Your task to perform on an android device: toggle airplane mode Image 0: 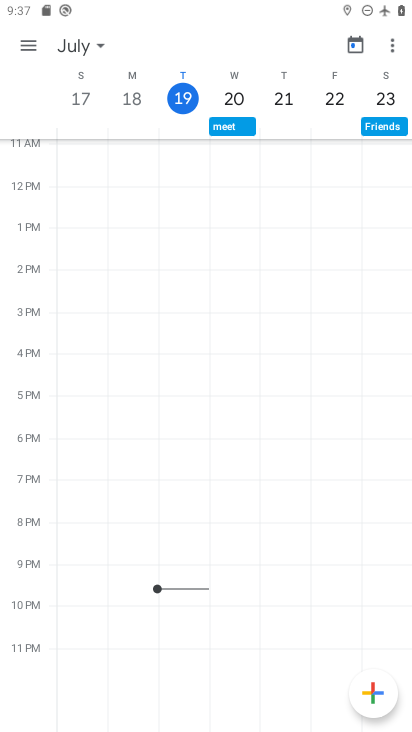
Step 0: press home button
Your task to perform on an android device: toggle airplane mode Image 1: 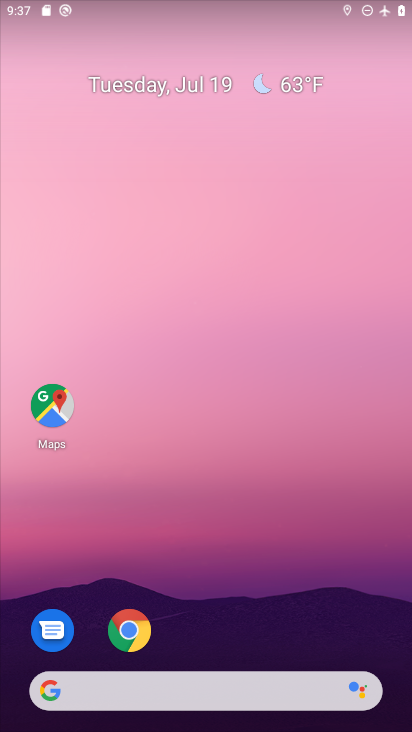
Step 1: drag from (226, 692) to (260, 163)
Your task to perform on an android device: toggle airplane mode Image 2: 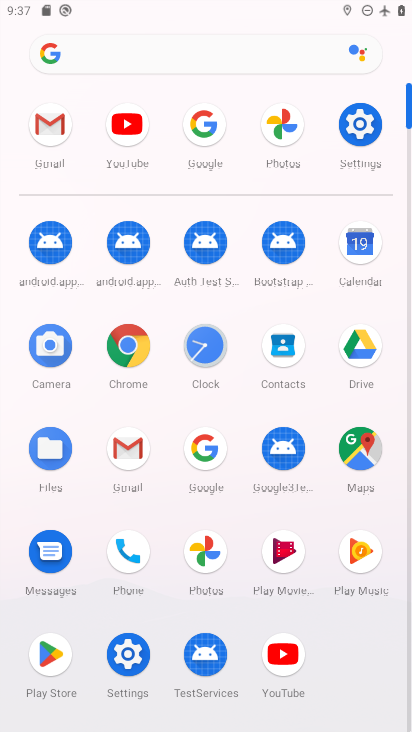
Step 2: click (359, 125)
Your task to perform on an android device: toggle airplane mode Image 3: 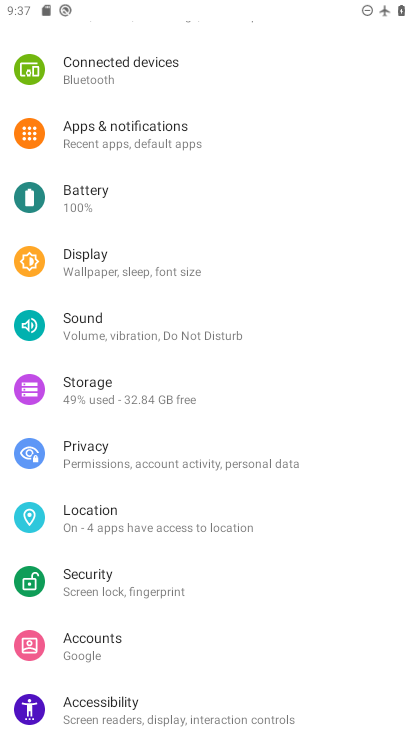
Step 3: drag from (163, 99) to (142, 427)
Your task to perform on an android device: toggle airplane mode Image 4: 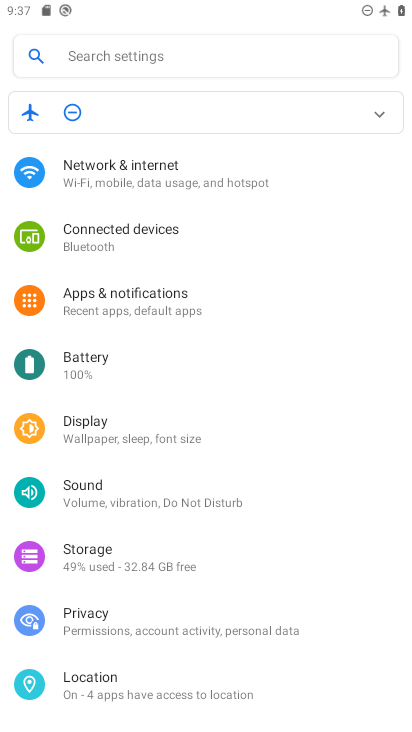
Step 4: click (153, 182)
Your task to perform on an android device: toggle airplane mode Image 5: 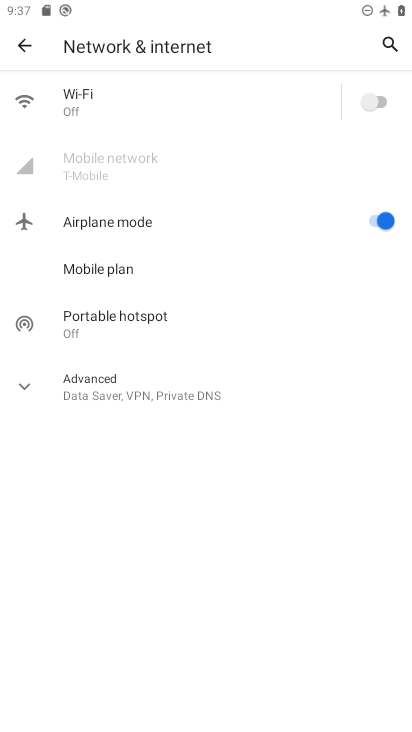
Step 5: click (379, 216)
Your task to perform on an android device: toggle airplane mode Image 6: 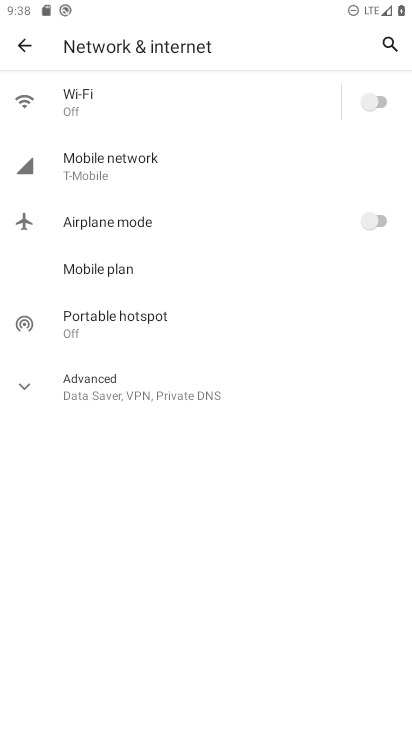
Step 6: task complete